Your task to perform on an android device: Do I have any events this weekend? Image 0: 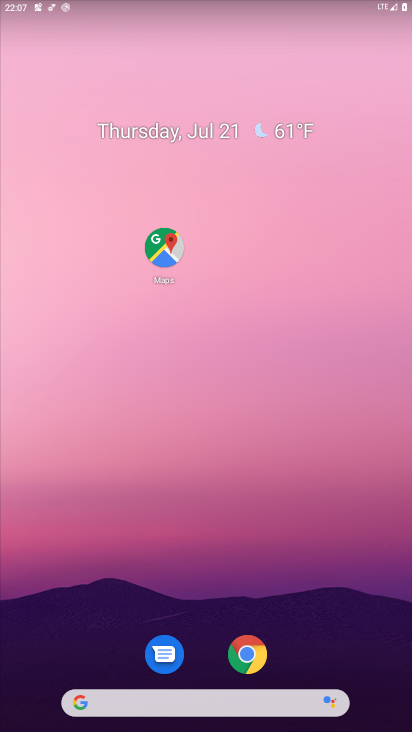
Step 0: drag from (37, 689) to (152, 70)
Your task to perform on an android device: Do I have any events this weekend? Image 1: 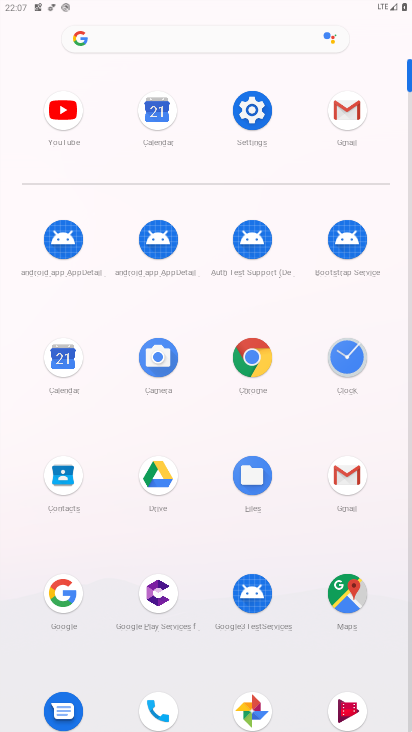
Step 1: click (67, 353)
Your task to perform on an android device: Do I have any events this weekend? Image 2: 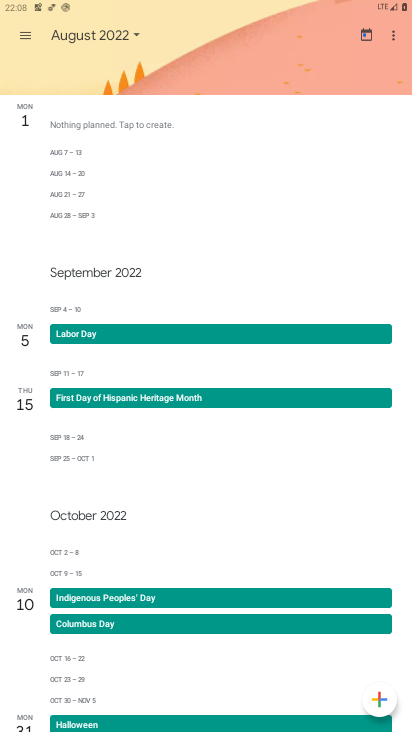
Step 2: click (117, 39)
Your task to perform on an android device: Do I have any events this weekend? Image 3: 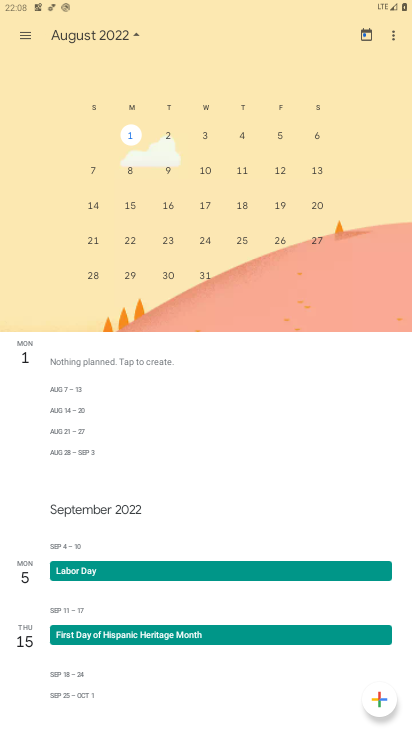
Step 3: drag from (11, 179) to (319, 160)
Your task to perform on an android device: Do I have any events this weekend? Image 4: 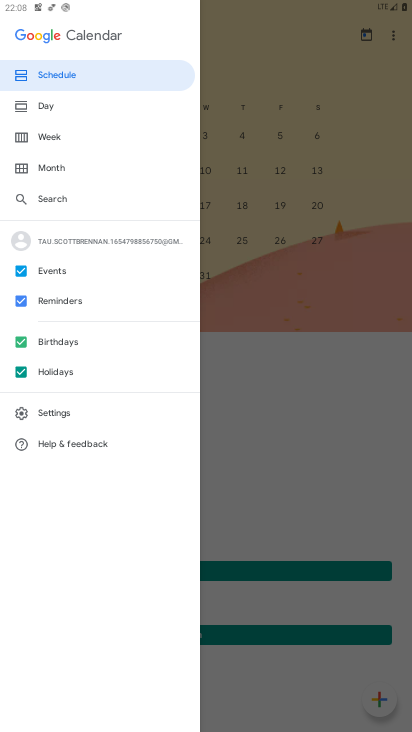
Step 4: click (319, 353)
Your task to perform on an android device: Do I have any events this weekend? Image 5: 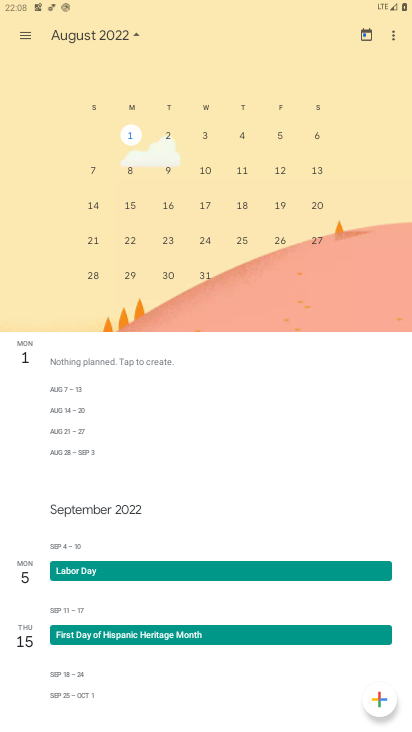
Step 5: task complete